Your task to perform on an android device: change the clock display to show seconds Image 0: 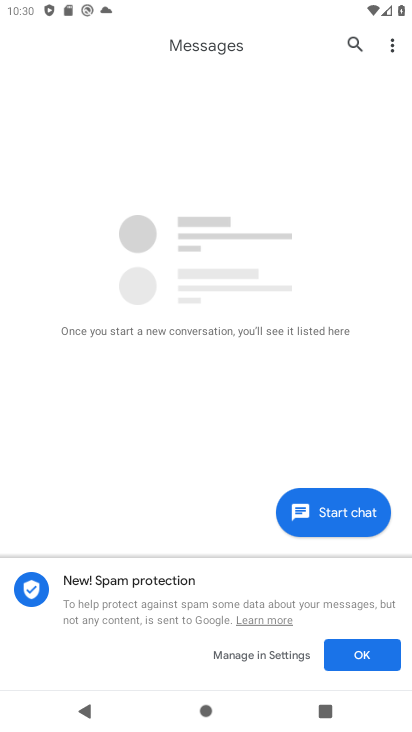
Step 0: press home button
Your task to perform on an android device: change the clock display to show seconds Image 1: 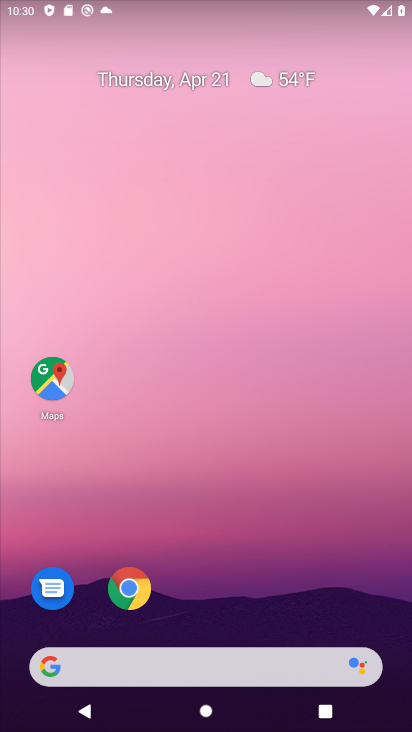
Step 1: drag from (379, 580) to (287, 0)
Your task to perform on an android device: change the clock display to show seconds Image 2: 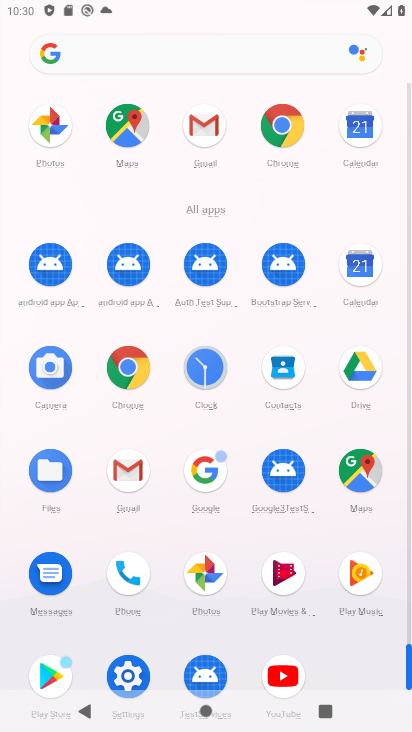
Step 2: click (199, 377)
Your task to perform on an android device: change the clock display to show seconds Image 3: 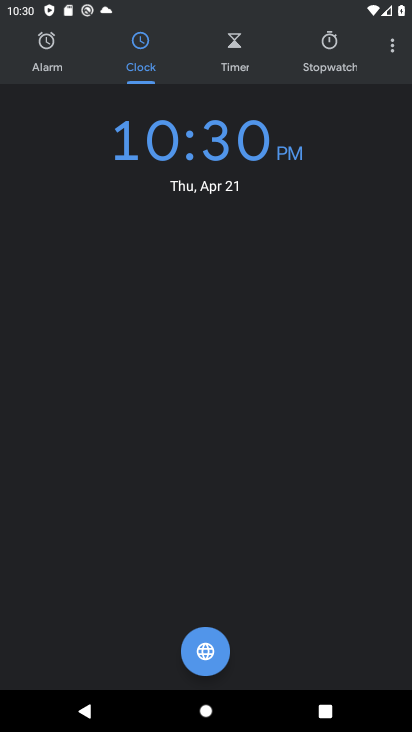
Step 3: click (394, 45)
Your task to perform on an android device: change the clock display to show seconds Image 4: 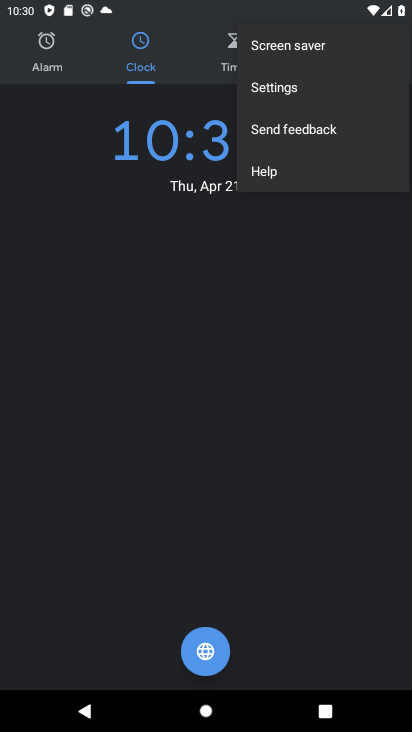
Step 4: click (285, 94)
Your task to perform on an android device: change the clock display to show seconds Image 5: 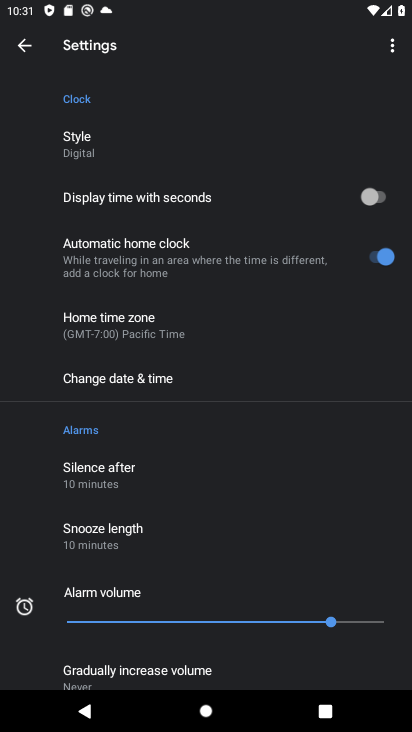
Step 5: click (208, 198)
Your task to perform on an android device: change the clock display to show seconds Image 6: 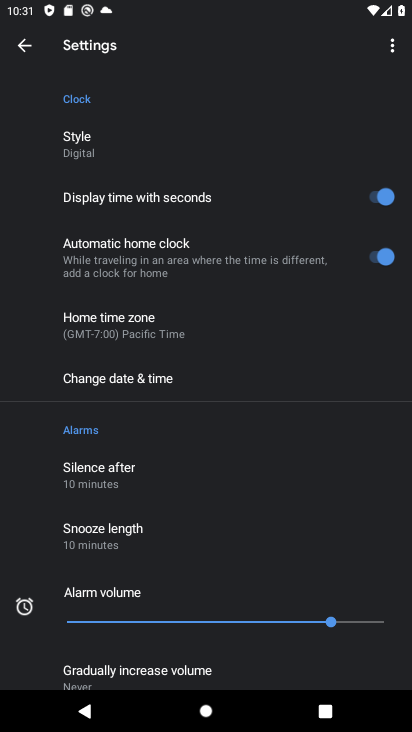
Step 6: task complete